Your task to perform on an android device: turn off smart reply in the gmail app Image 0: 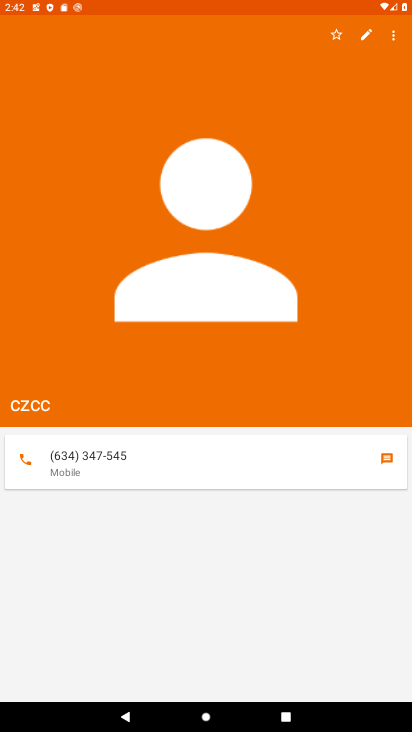
Step 0: press home button
Your task to perform on an android device: turn off smart reply in the gmail app Image 1: 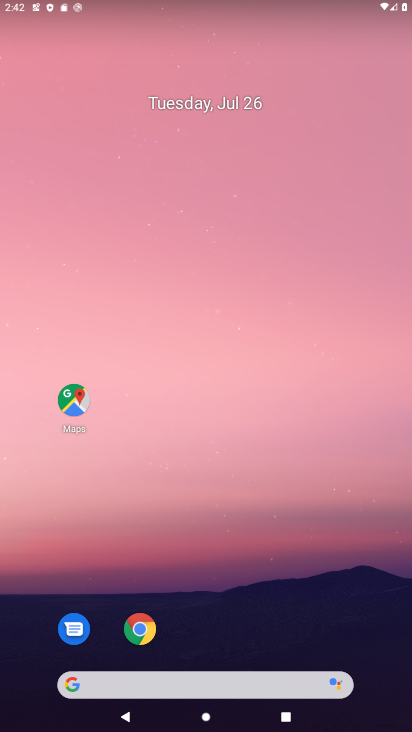
Step 1: drag from (224, 606) to (225, 220)
Your task to perform on an android device: turn off smart reply in the gmail app Image 2: 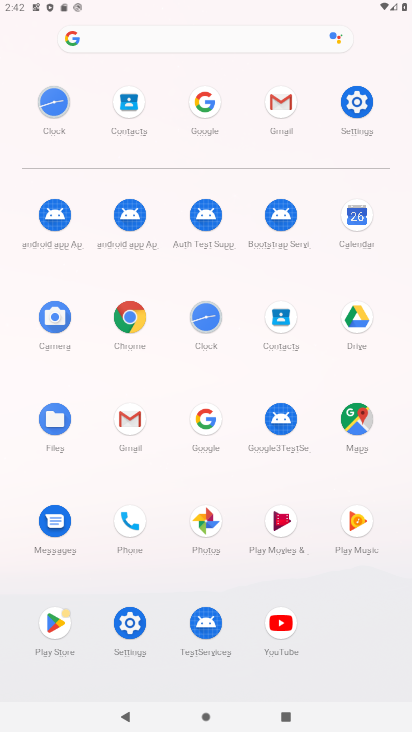
Step 2: click (263, 118)
Your task to perform on an android device: turn off smart reply in the gmail app Image 3: 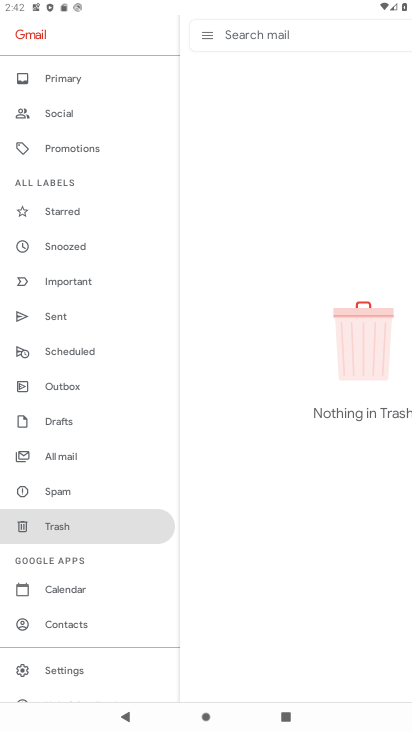
Step 3: click (74, 660)
Your task to perform on an android device: turn off smart reply in the gmail app Image 4: 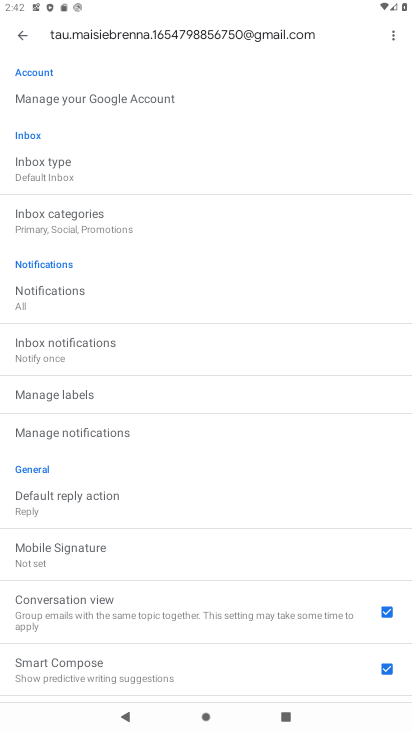
Step 4: drag from (181, 667) to (227, 385)
Your task to perform on an android device: turn off smart reply in the gmail app Image 5: 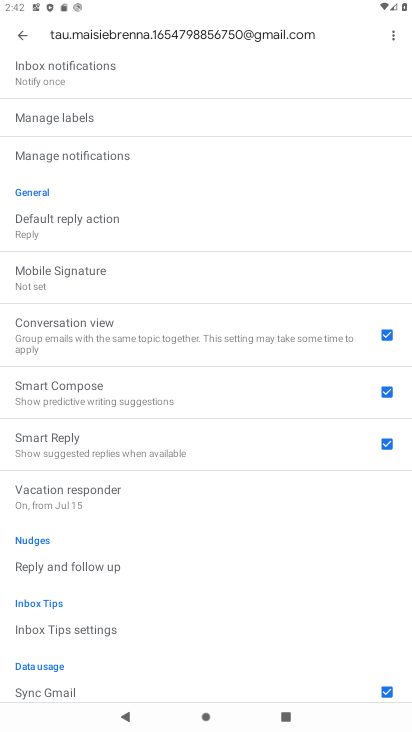
Step 5: click (391, 452)
Your task to perform on an android device: turn off smart reply in the gmail app Image 6: 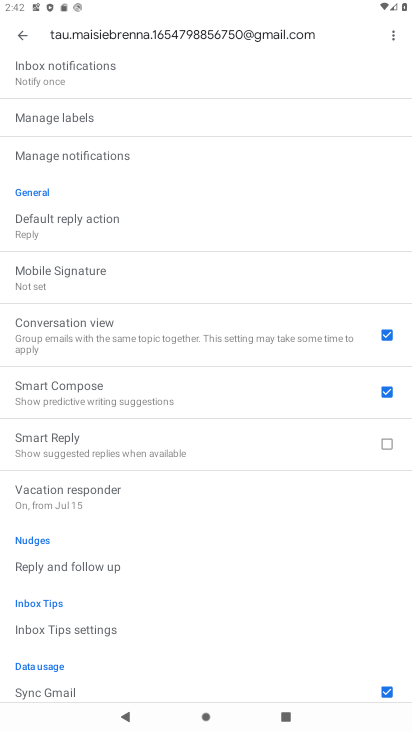
Step 6: task complete